Your task to perform on an android device: toggle pop-ups in chrome Image 0: 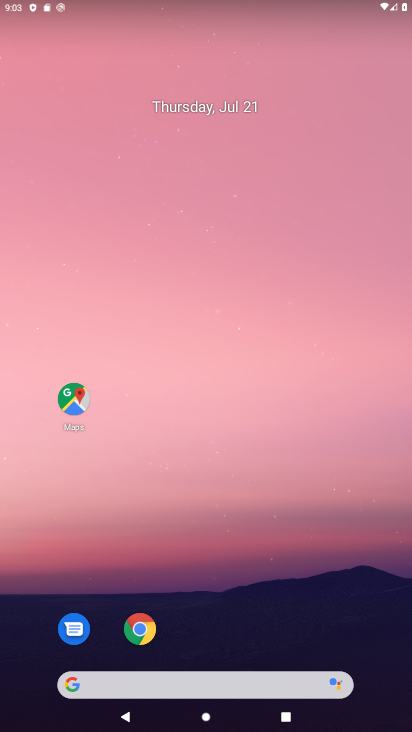
Step 0: click (139, 620)
Your task to perform on an android device: toggle pop-ups in chrome Image 1: 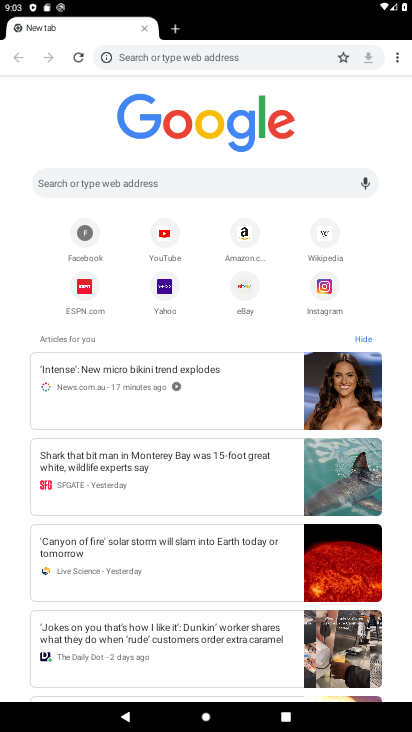
Step 1: click (393, 56)
Your task to perform on an android device: toggle pop-ups in chrome Image 2: 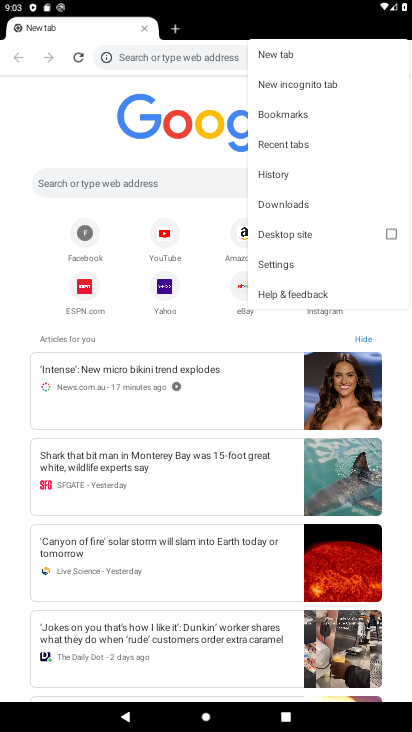
Step 2: click (295, 272)
Your task to perform on an android device: toggle pop-ups in chrome Image 3: 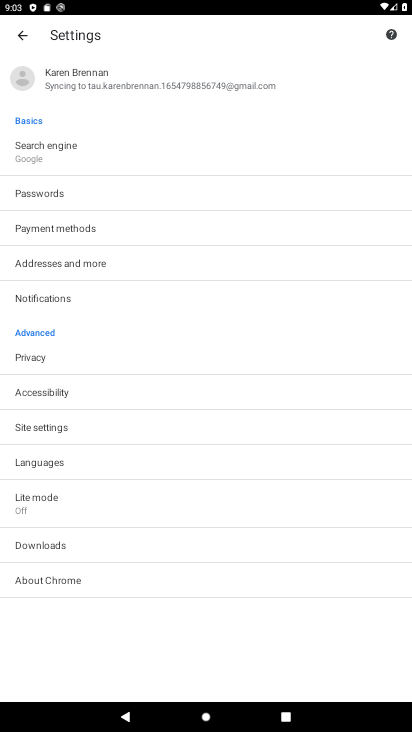
Step 3: click (83, 433)
Your task to perform on an android device: toggle pop-ups in chrome Image 4: 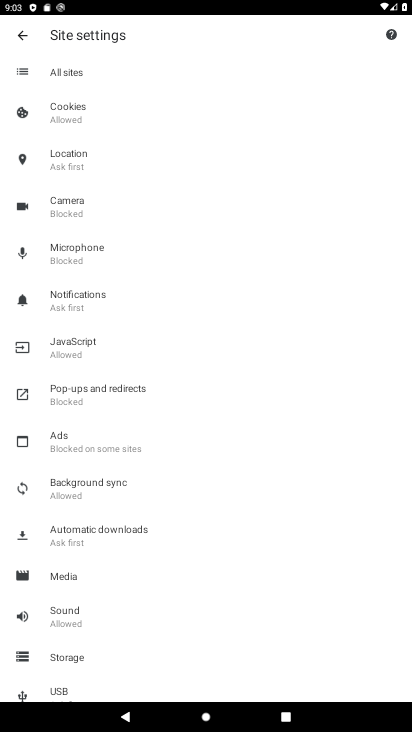
Step 4: click (160, 394)
Your task to perform on an android device: toggle pop-ups in chrome Image 5: 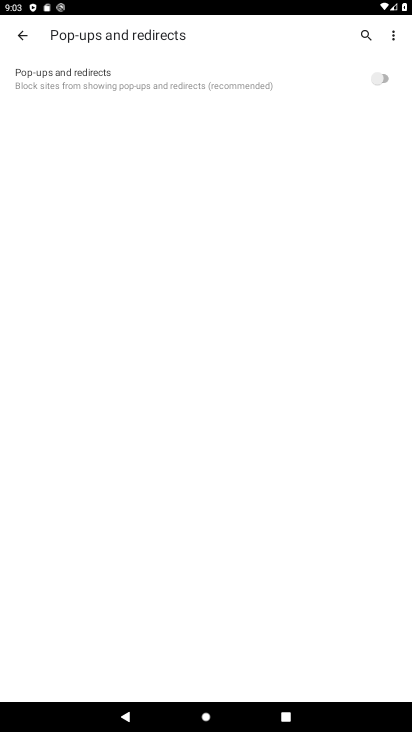
Step 5: click (372, 83)
Your task to perform on an android device: toggle pop-ups in chrome Image 6: 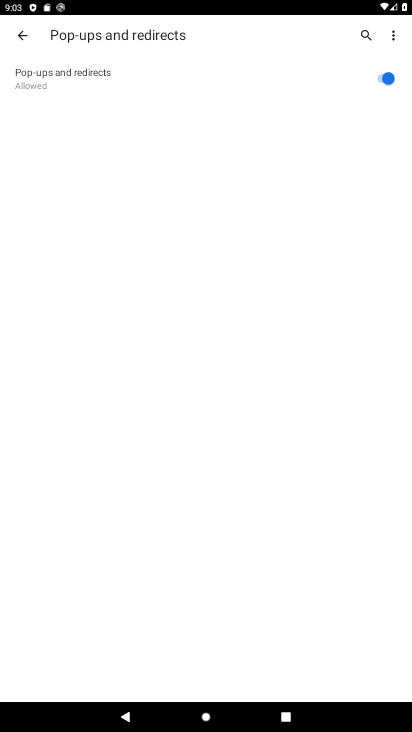
Step 6: task complete